Your task to perform on an android device: set default search engine in the chrome app Image 0: 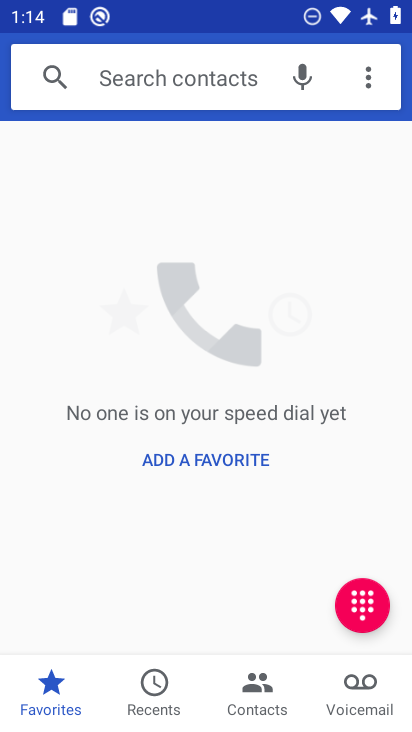
Step 0: press home button
Your task to perform on an android device: set default search engine in the chrome app Image 1: 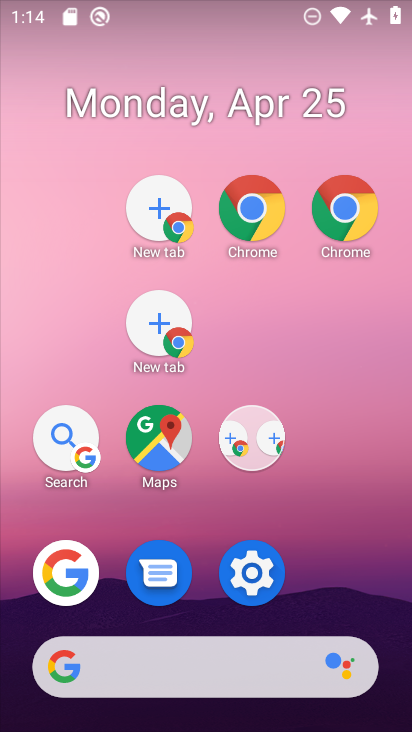
Step 1: drag from (294, 598) to (218, 79)
Your task to perform on an android device: set default search engine in the chrome app Image 2: 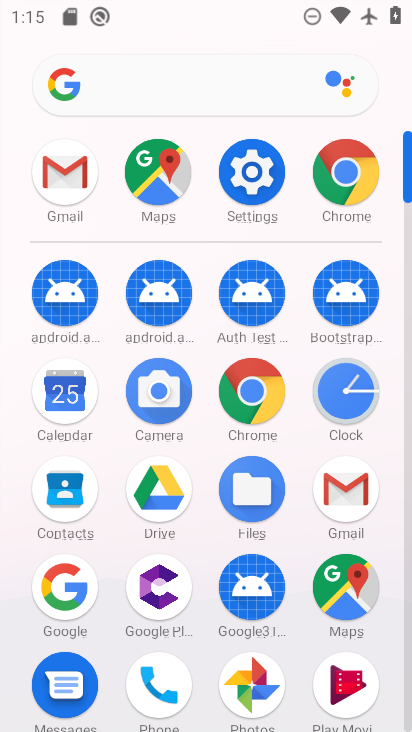
Step 2: click (346, 172)
Your task to perform on an android device: set default search engine in the chrome app Image 3: 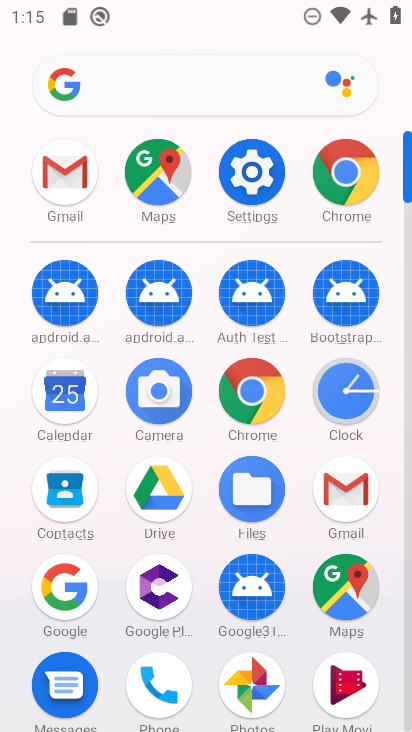
Step 3: click (346, 172)
Your task to perform on an android device: set default search engine in the chrome app Image 4: 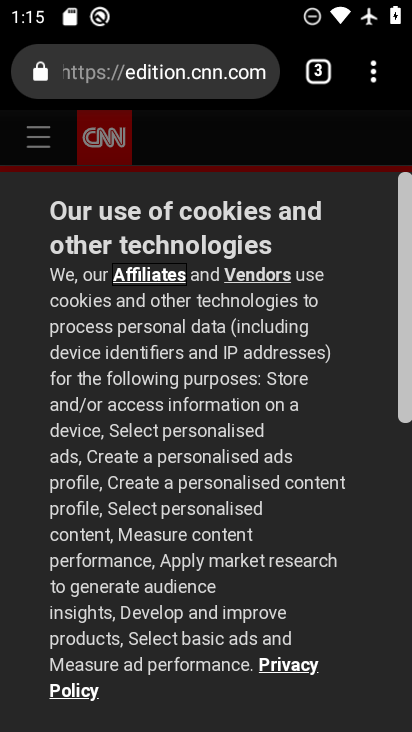
Step 4: drag from (376, 84) to (116, 560)
Your task to perform on an android device: set default search engine in the chrome app Image 5: 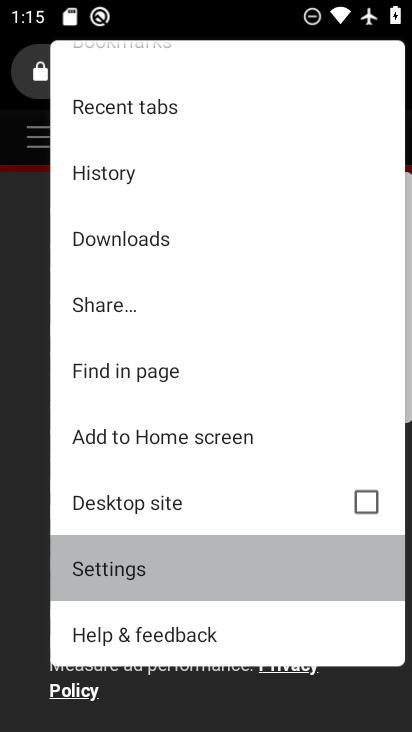
Step 5: click (119, 558)
Your task to perform on an android device: set default search engine in the chrome app Image 6: 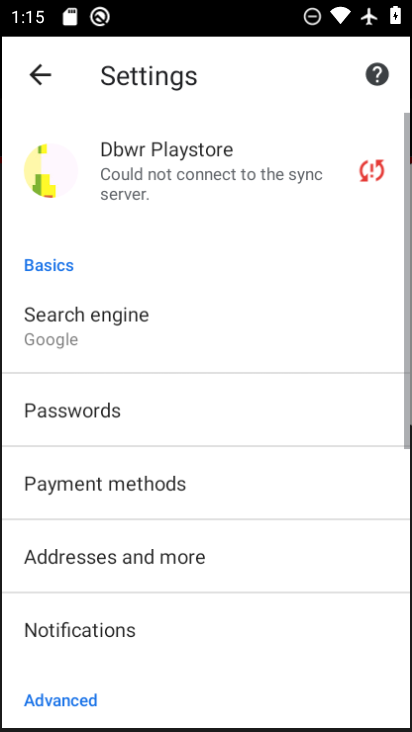
Step 6: click (119, 558)
Your task to perform on an android device: set default search engine in the chrome app Image 7: 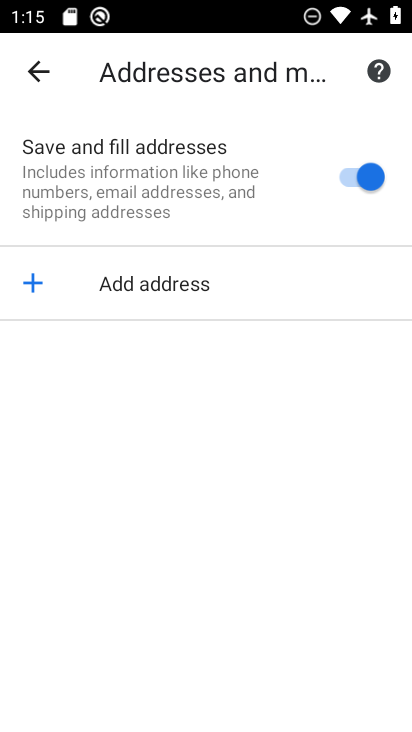
Step 7: click (35, 58)
Your task to perform on an android device: set default search engine in the chrome app Image 8: 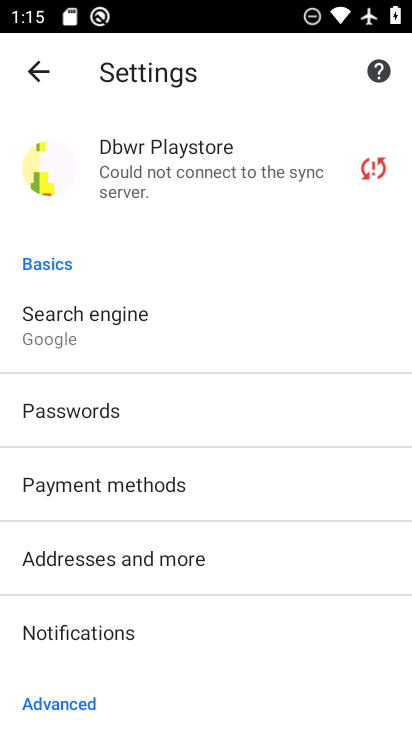
Step 8: click (87, 316)
Your task to perform on an android device: set default search engine in the chrome app Image 9: 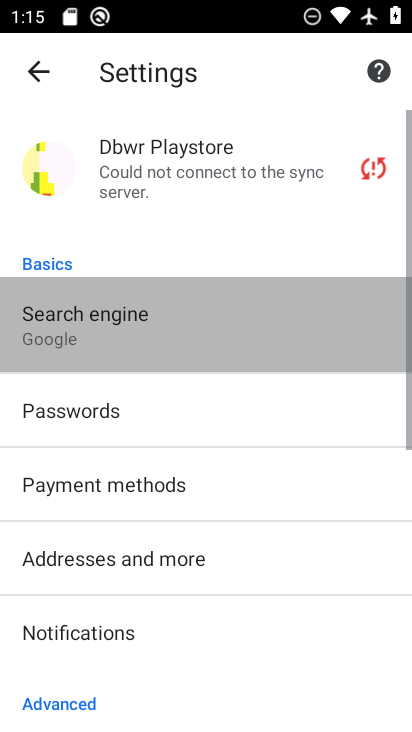
Step 9: click (85, 315)
Your task to perform on an android device: set default search engine in the chrome app Image 10: 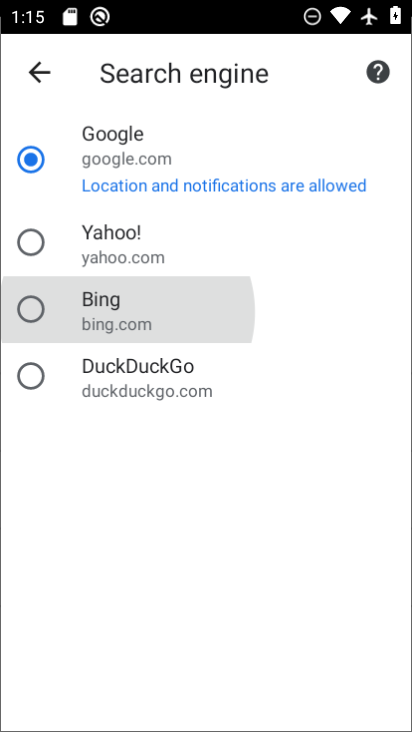
Step 10: click (85, 315)
Your task to perform on an android device: set default search engine in the chrome app Image 11: 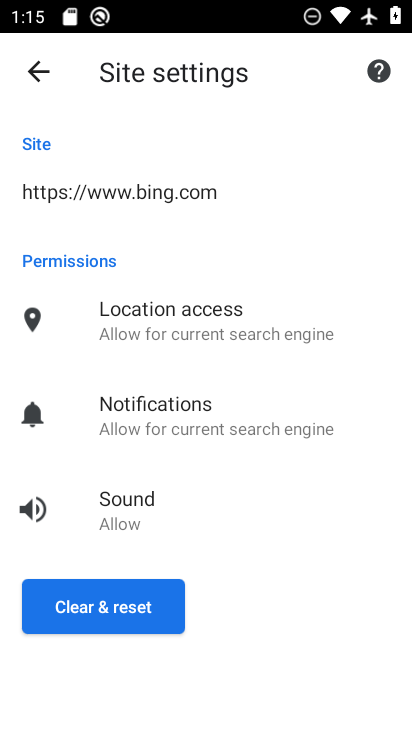
Step 11: click (38, 62)
Your task to perform on an android device: set default search engine in the chrome app Image 12: 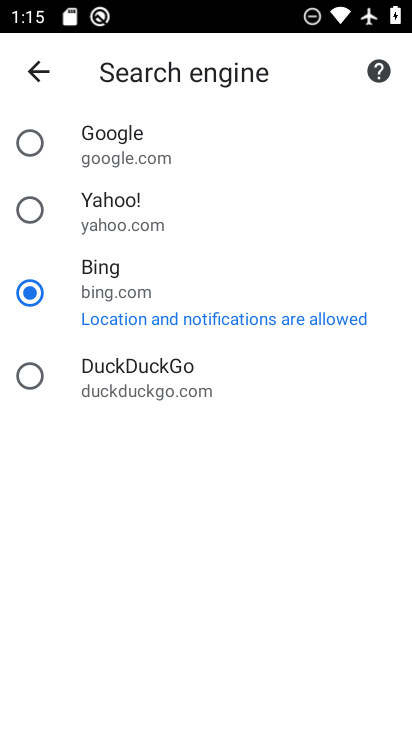
Step 12: click (39, 145)
Your task to perform on an android device: set default search engine in the chrome app Image 13: 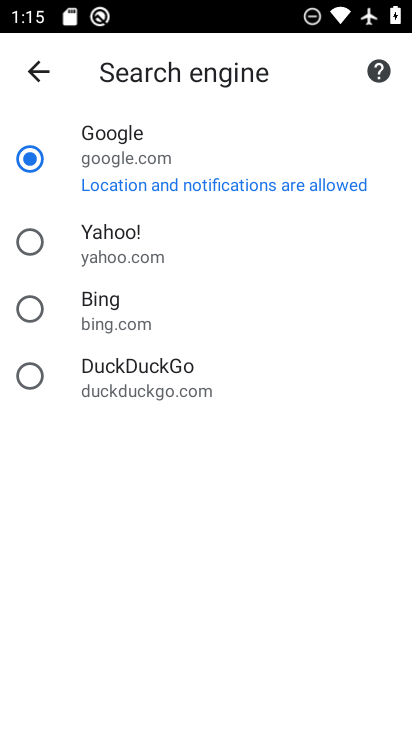
Step 13: task complete